Your task to perform on an android device: turn on bluetooth scan Image 0: 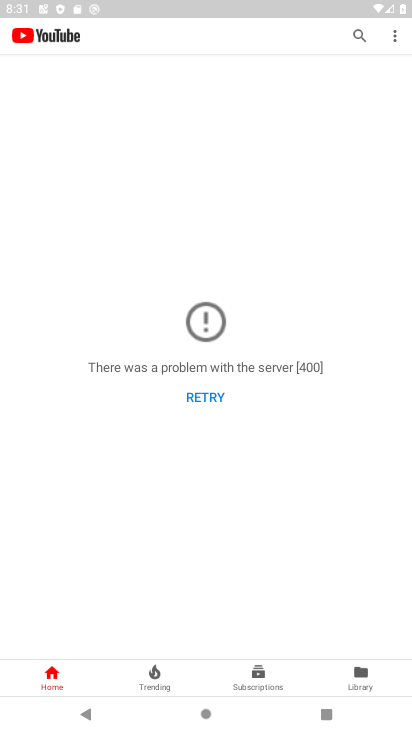
Step 0: press home button
Your task to perform on an android device: turn on bluetooth scan Image 1: 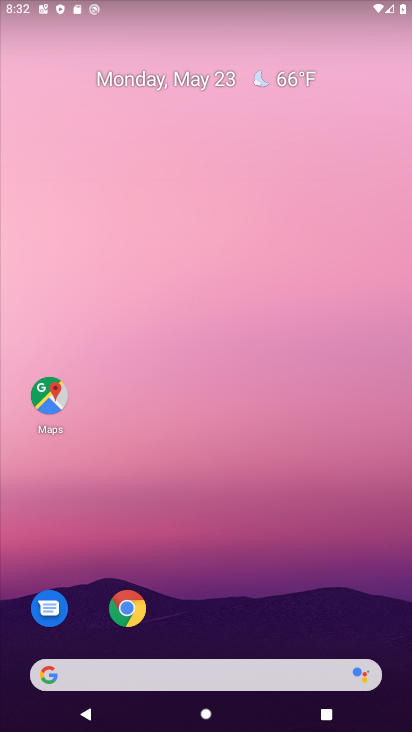
Step 1: drag from (231, 723) to (237, 232)
Your task to perform on an android device: turn on bluetooth scan Image 2: 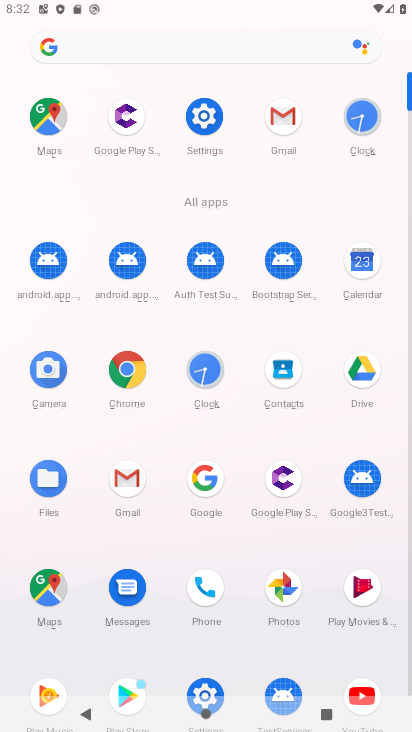
Step 2: click (201, 110)
Your task to perform on an android device: turn on bluetooth scan Image 3: 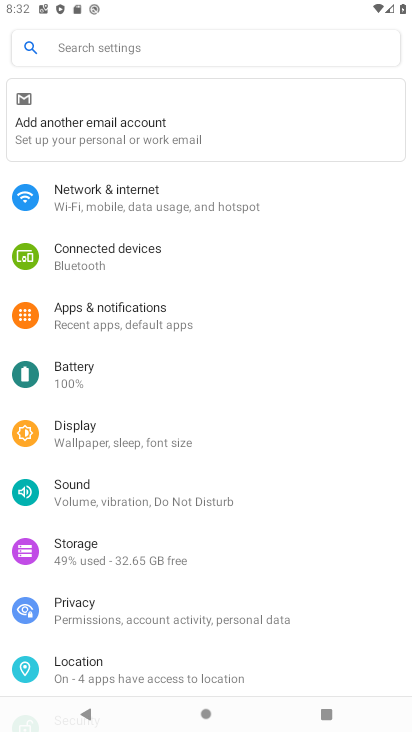
Step 3: click (104, 671)
Your task to perform on an android device: turn on bluetooth scan Image 4: 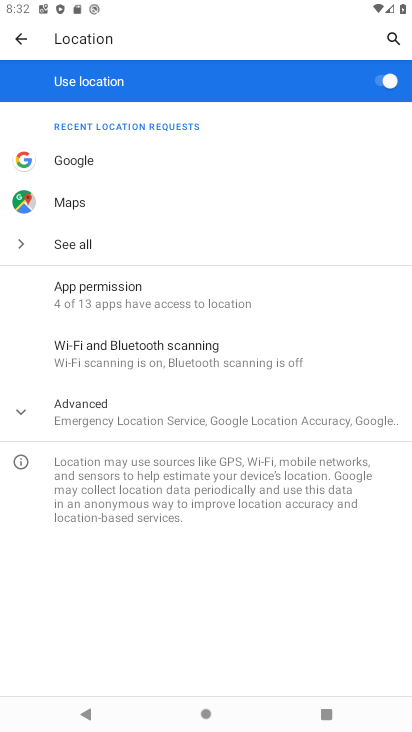
Step 4: click (146, 355)
Your task to perform on an android device: turn on bluetooth scan Image 5: 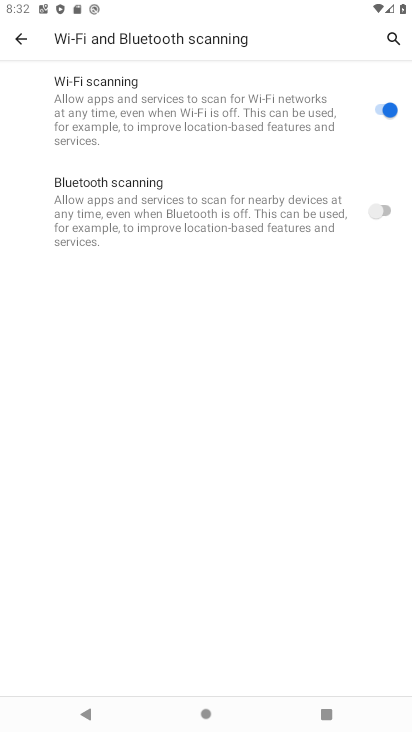
Step 5: click (389, 210)
Your task to perform on an android device: turn on bluetooth scan Image 6: 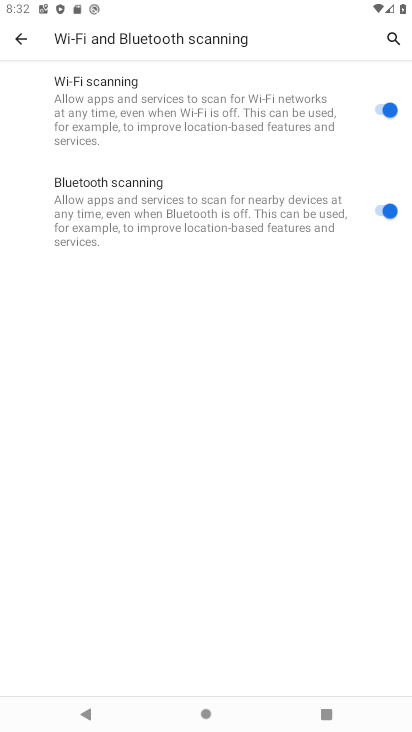
Step 6: task complete